Your task to perform on an android device: Open Google Maps Image 0: 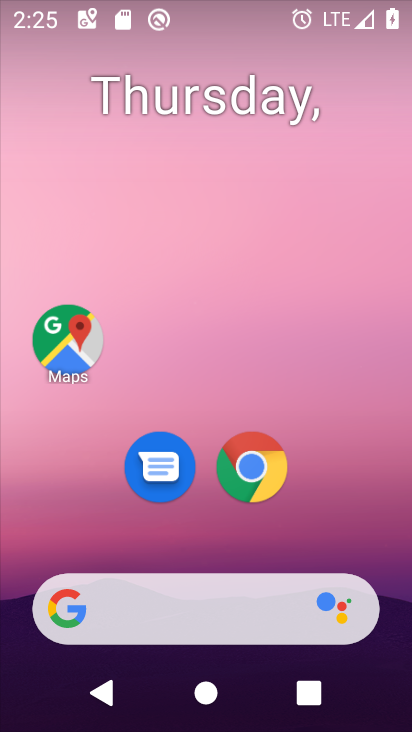
Step 0: click (65, 338)
Your task to perform on an android device: Open Google Maps Image 1: 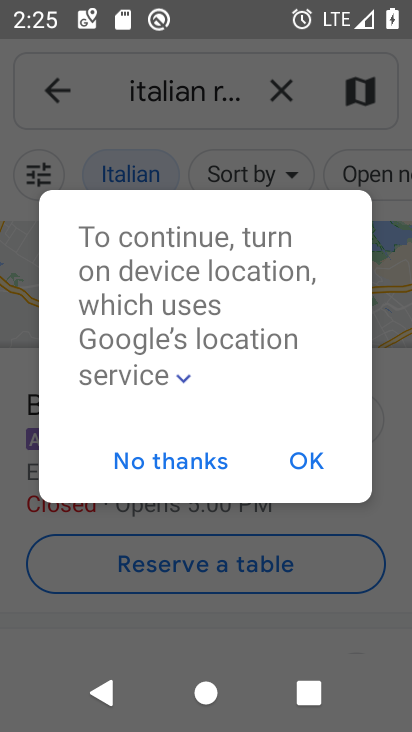
Step 1: click (262, 453)
Your task to perform on an android device: Open Google Maps Image 2: 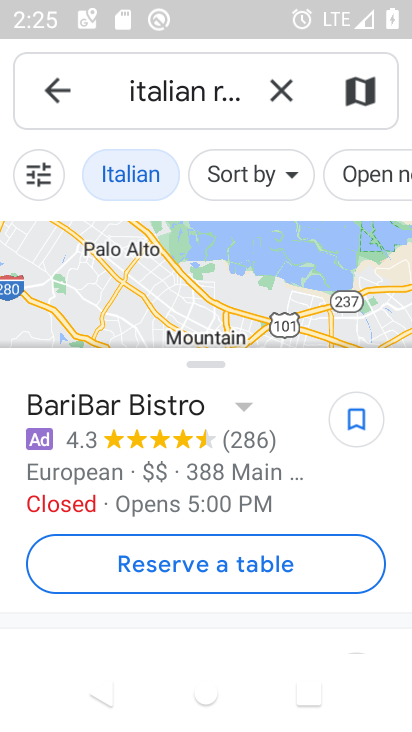
Step 2: task complete